Your task to perform on an android device: Search for Mexican restaurants on Maps Image 0: 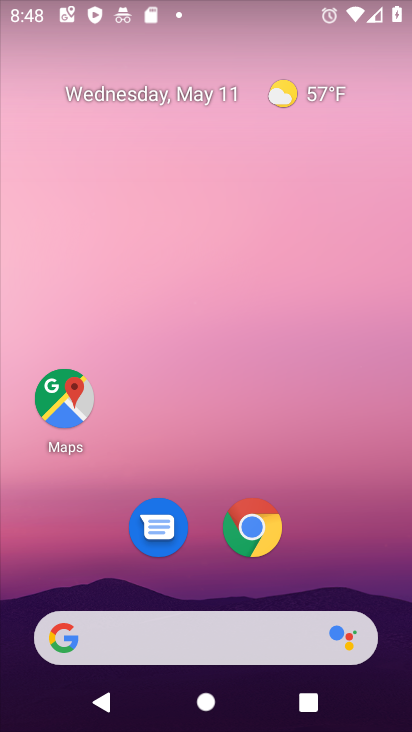
Step 0: click (65, 399)
Your task to perform on an android device: Search for Mexican restaurants on Maps Image 1: 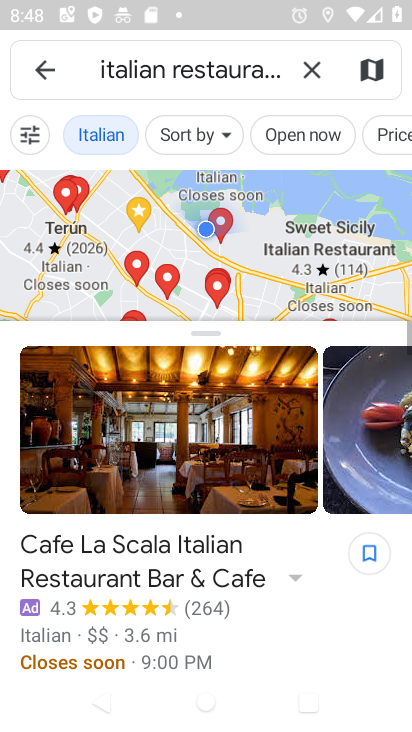
Step 1: click (315, 79)
Your task to perform on an android device: Search for Mexican restaurants on Maps Image 2: 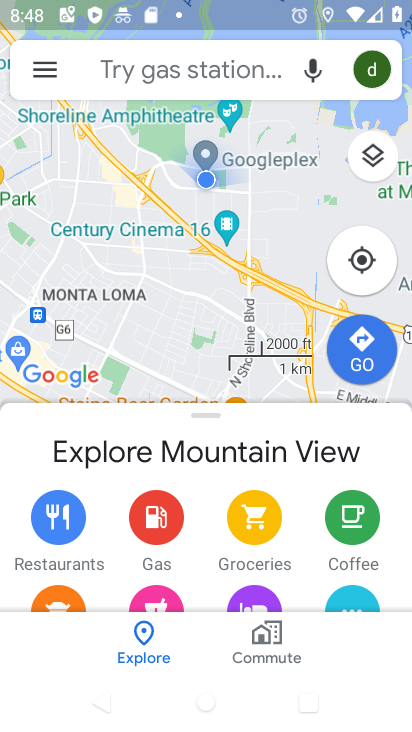
Step 2: click (100, 78)
Your task to perform on an android device: Search for Mexican restaurants on Maps Image 3: 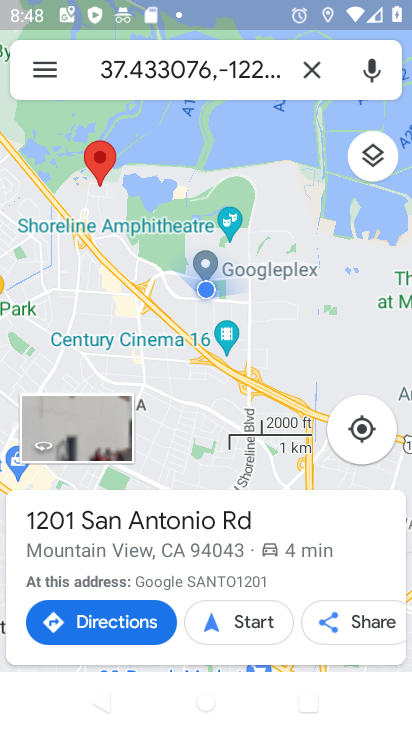
Step 3: click (314, 73)
Your task to perform on an android device: Search for Mexican restaurants on Maps Image 4: 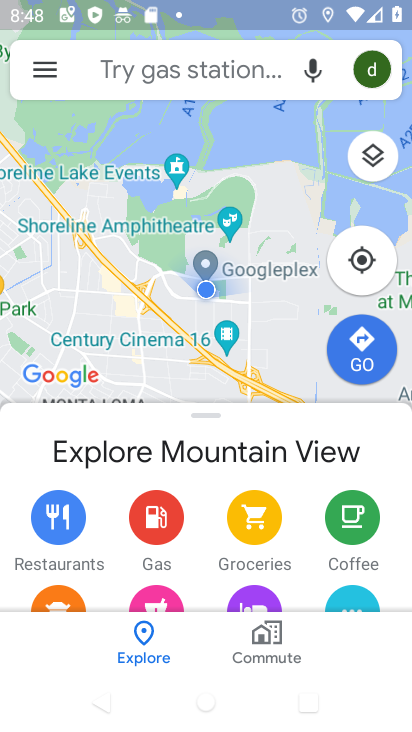
Step 4: click (145, 75)
Your task to perform on an android device: Search for Mexican restaurants on Maps Image 5: 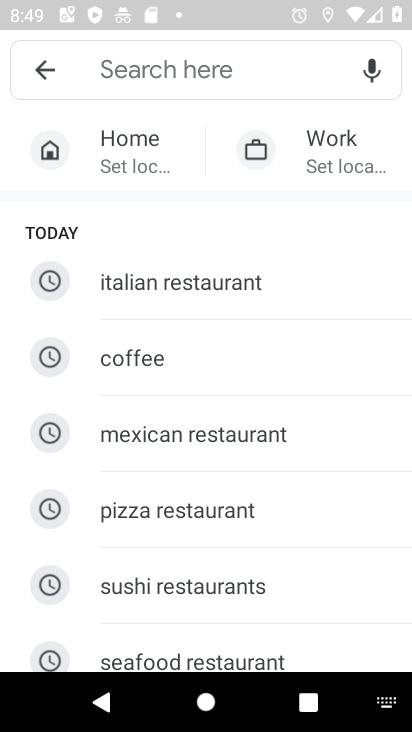
Step 5: type "mexican restaurant"
Your task to perform on an android device: Search for Mexican restaurants on Maps Image 6: 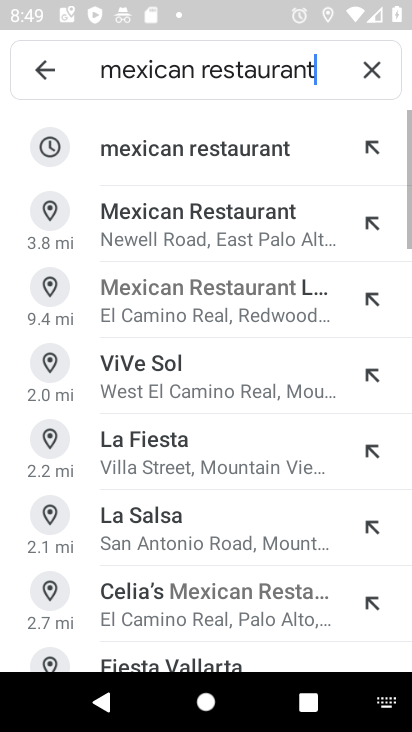
Step 6: click (217, 149)
Your task to perform on an android device: Search for Mexican restaurants on Maps Image 7: 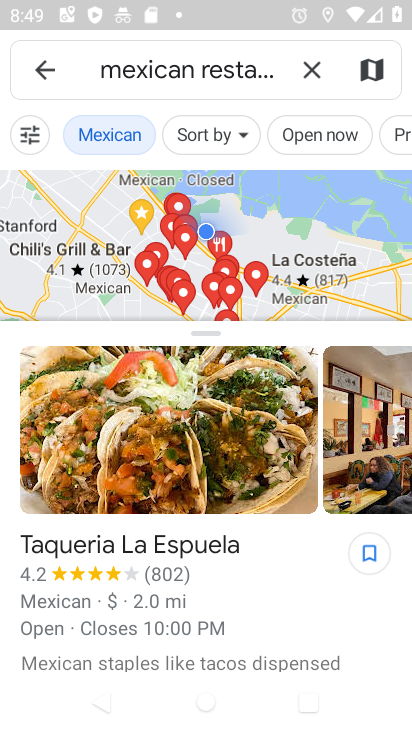
Step 7: task complete